Your task to perform on an android device: check android version Image 0: 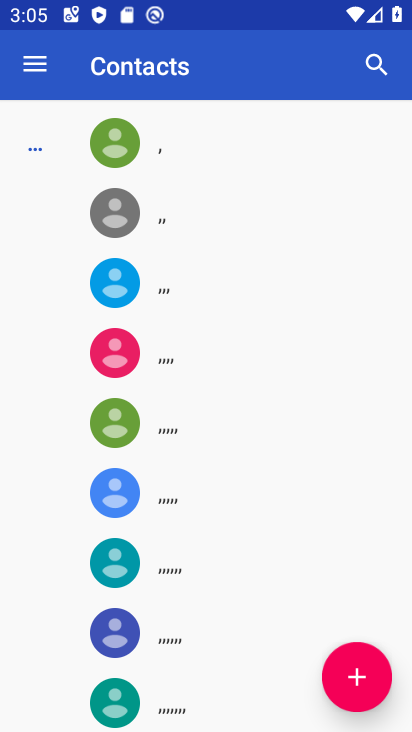
Step 0: drag from (246, 714) to (246, 317)
Your task to perform on an android device: check android version Image 1: 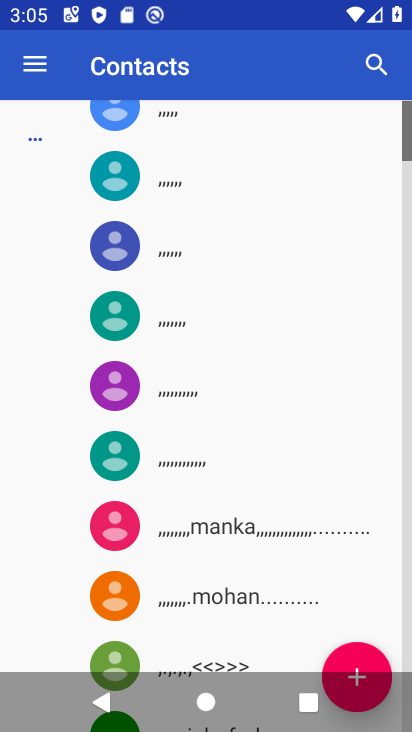
Step 1: press home button
Your task to perform on an android device: check android version Image 2: 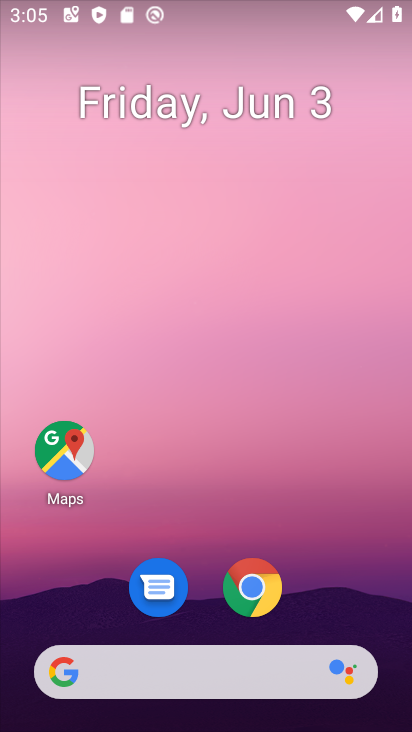
Step 2: drag from (230, 724) to (215, 244)
Your task to perform on an android device: check android version Image 3: 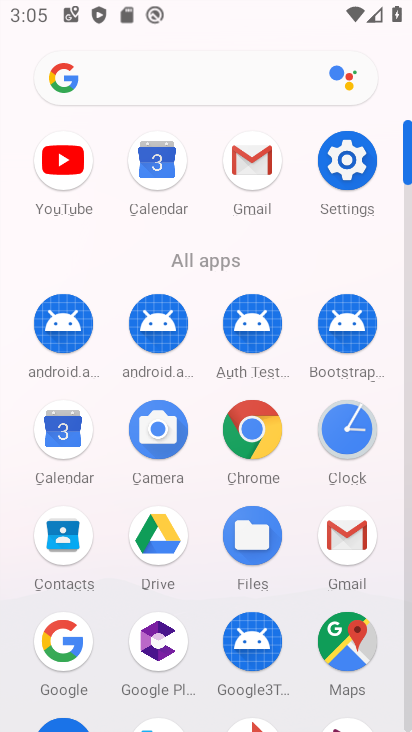
Step 3: click (356, 172)
Your task to perform on an android device: check android version Image 4: 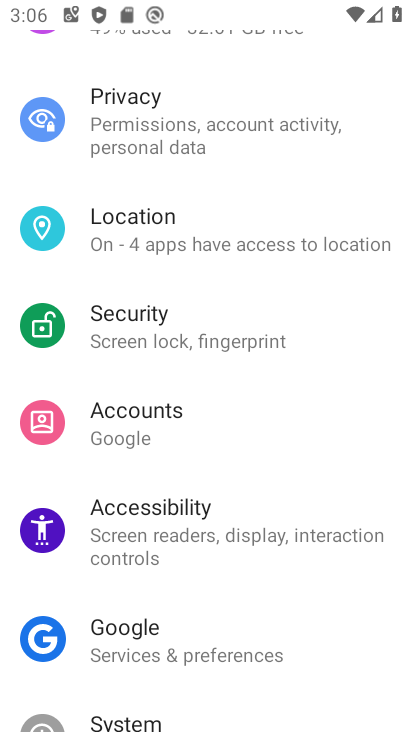
Step 4: drag from (221, 692) to (229, 365)
Your task to perform on an android device: check android version Image 5: 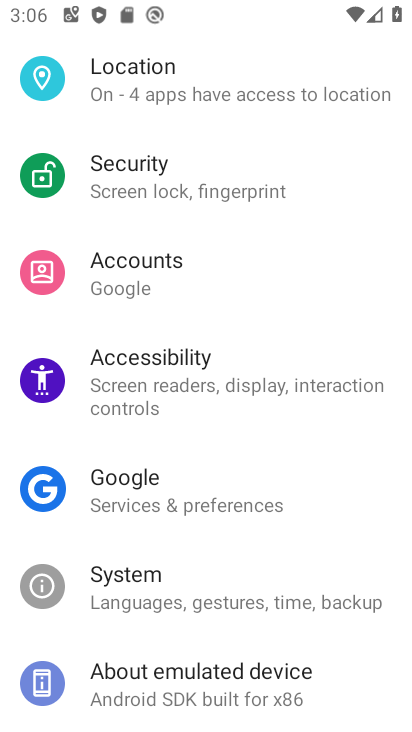
Step 5: click (246, 687)
Your task to perform on an android device: check android version Image 6: 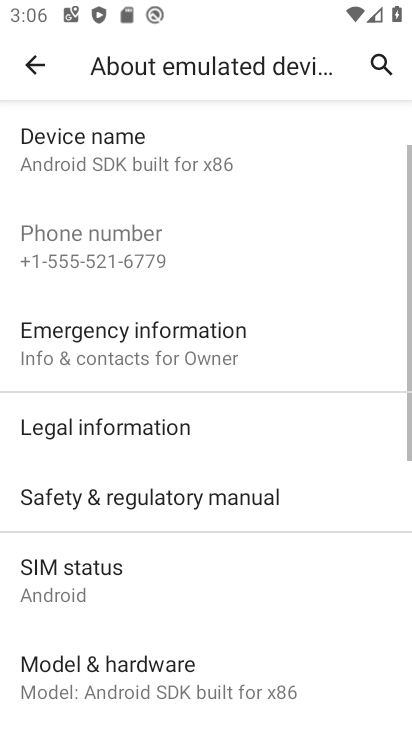
Step 6: drag from (149, 657) to (156, 344)
Your task to perform on an android device: check android version Image 7: 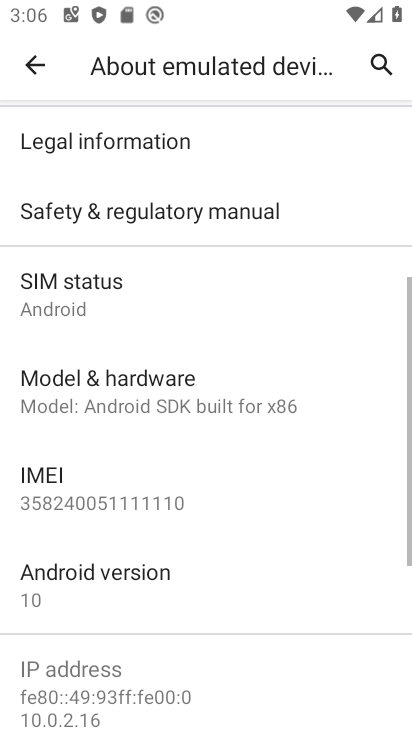
Step 7: click (116, 573)
Your task to perform on an android device: check android version Image 8: 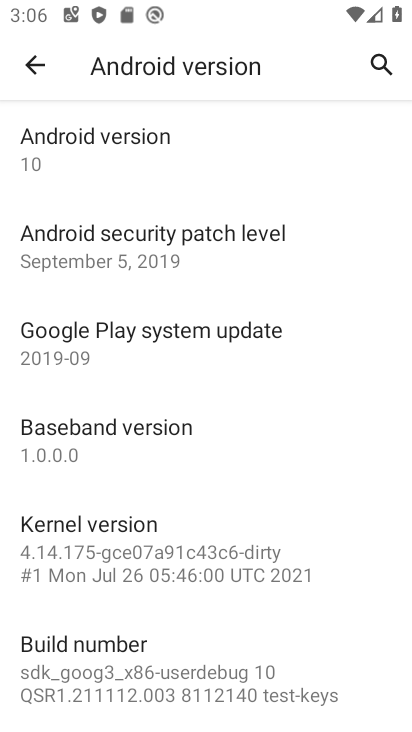
Step 8: task complete